Your task to perform on an android device: Search for sushi restaurants on Maps Image 0: 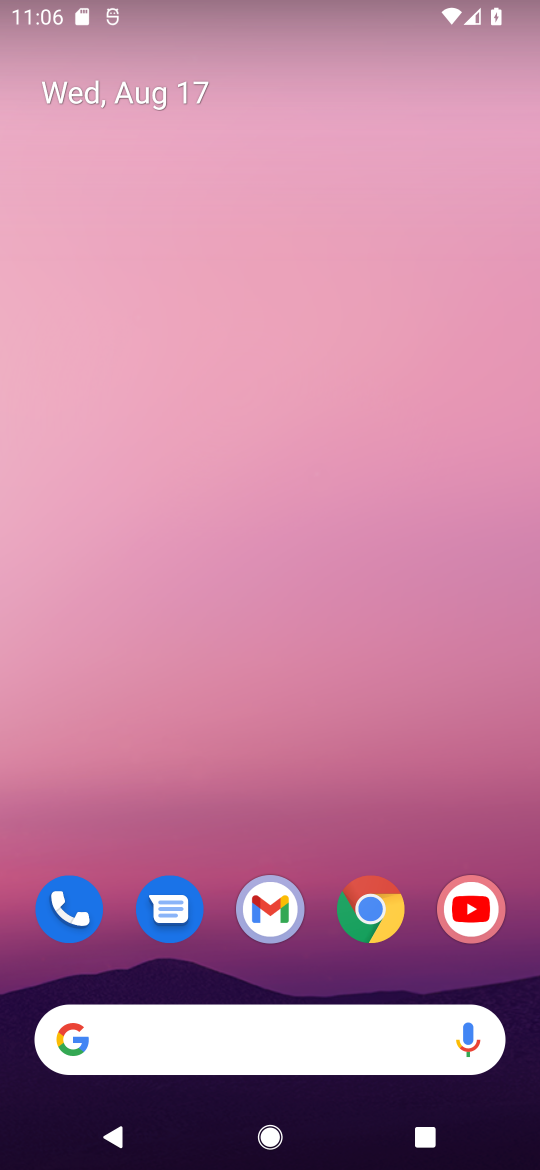
Step 0: drag from (254, 933) to (308, 128)
Your task to perform on an android device: Search for sushi restaurants on Maps Image 1: 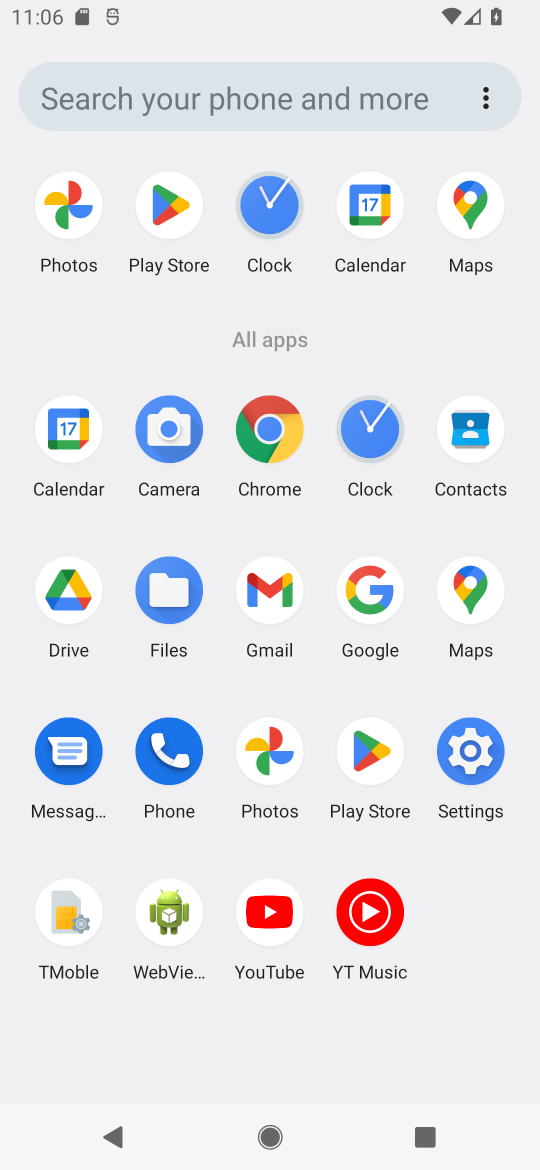
Step 1: click (471, 203)
Your task to perform on an android device: Search for sushi restaurants on Maps Image 2: 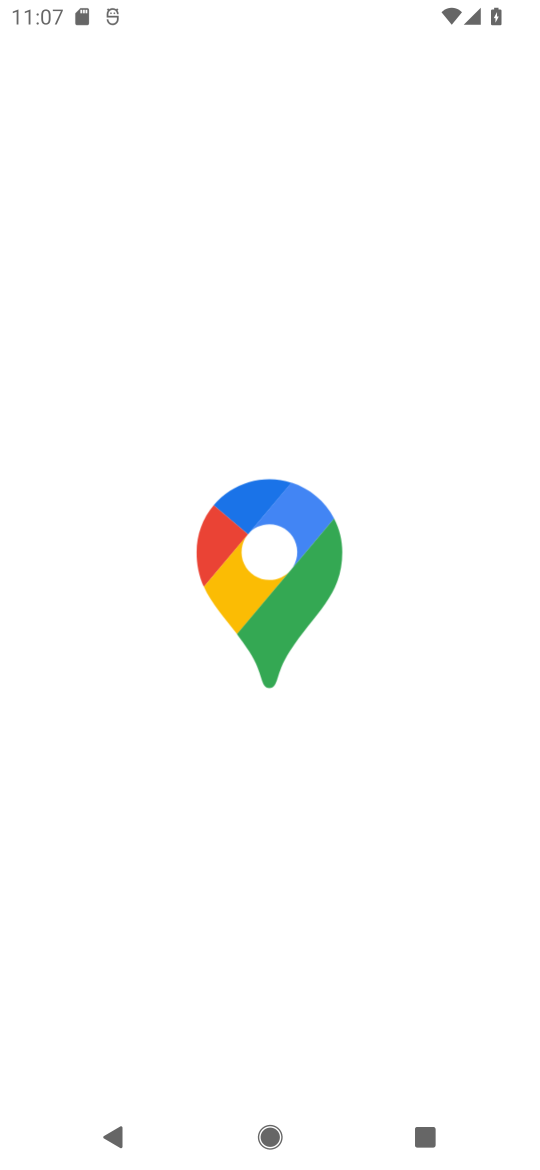
Step 2: task complete